Your task to perform on an android device: Open the map Image 0: 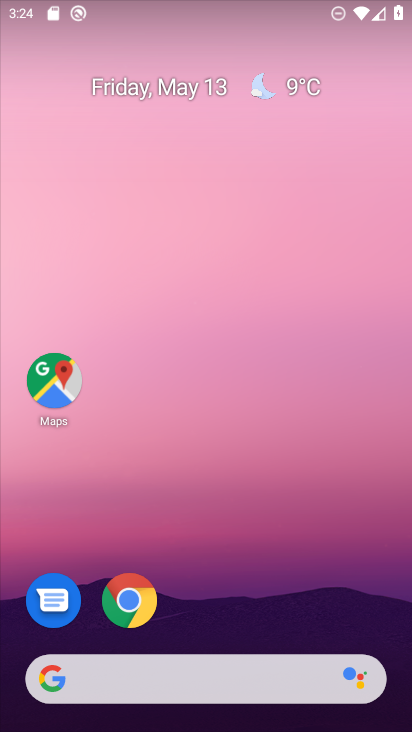
Step 0: click (244, 176)
Your task to perform on an android device: Open the map Image 1: 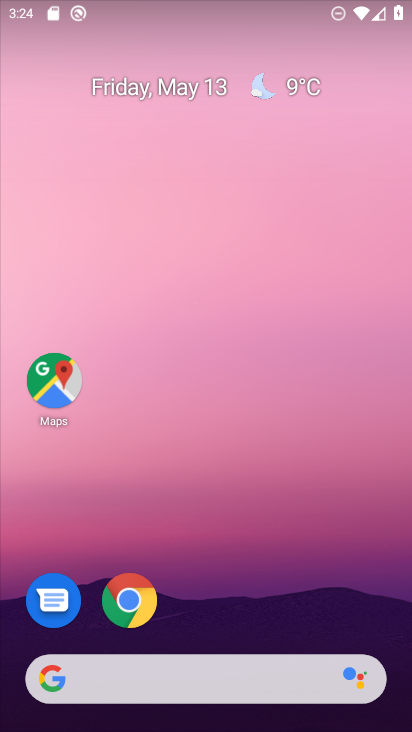
Step 1: drag from (195, 630) to (278, 66)
Your task to perform on an android device: Open the map Image 2: 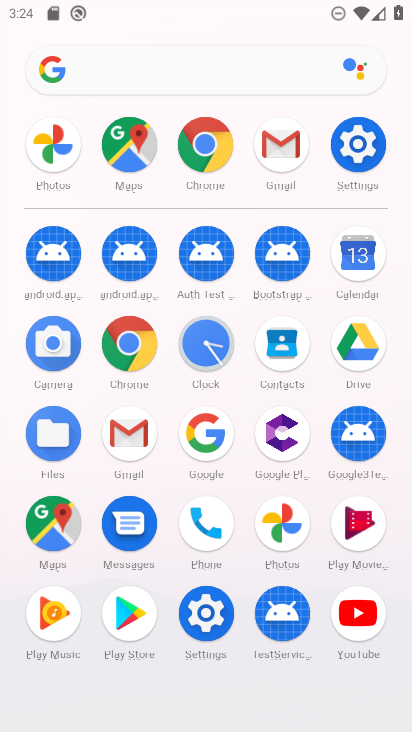
Step 2: click (130, 140)
Your task to perform on an android device: Open the map Image 3: 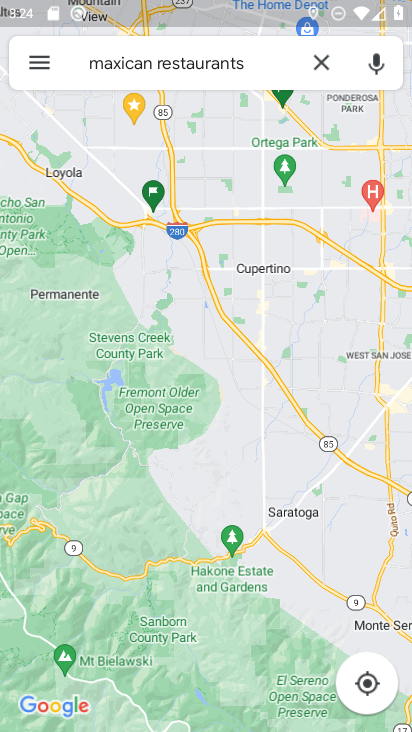
Step 3: task complete